Your task to perform on an android device: see creations saved in the google photos Image 0: 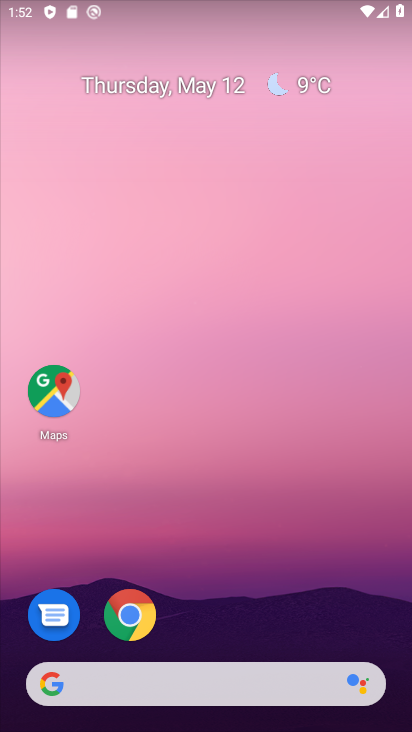
Step 0: press home button
Your task to perform on an android device: see creations saved in the google photos Image 1: 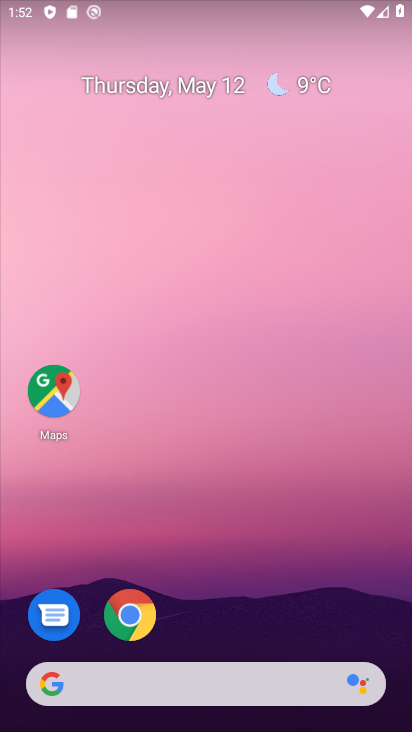
Step 1: drag from (175, 671) to (136, 47)
Your task to perform on an android device: see creations saved in the google photos Image 2: 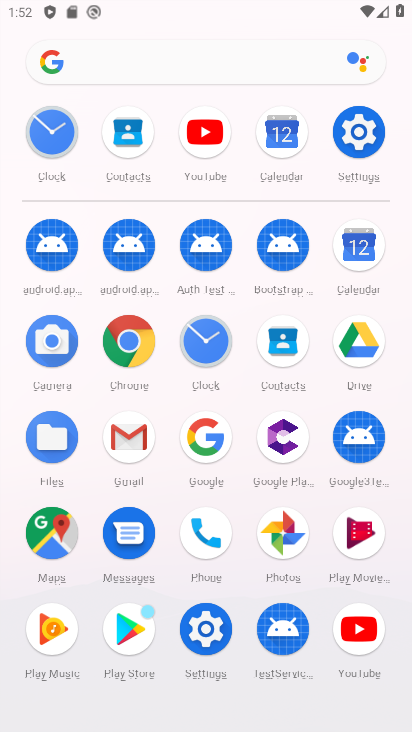
Step 2: click (269, 529)
Your task to perform on an android device: see creations saved in the google photos Image 3: 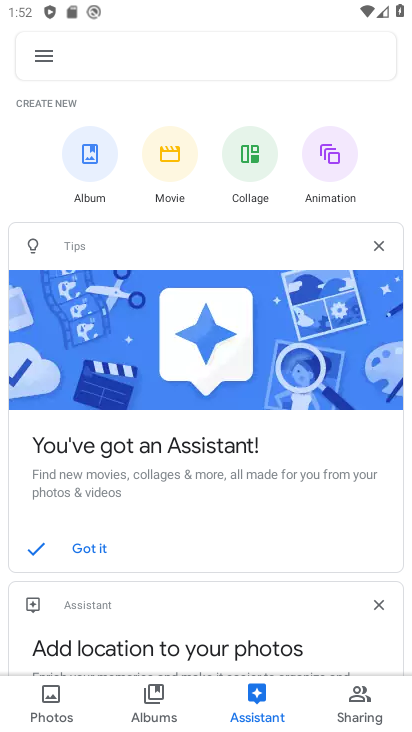
Step 3: click (356, 702)
Your task to perform on an android device: see creations saved in the google photos Image 4: 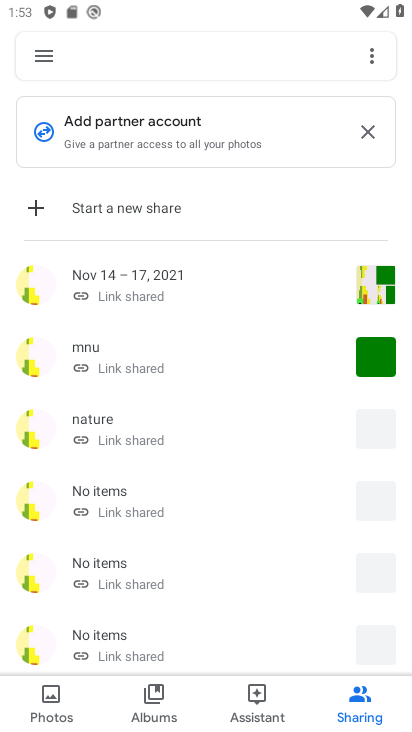
Step 4: task complete